Your task to perform on an android device: see tabs open on other devices in the chrome app Image 0: 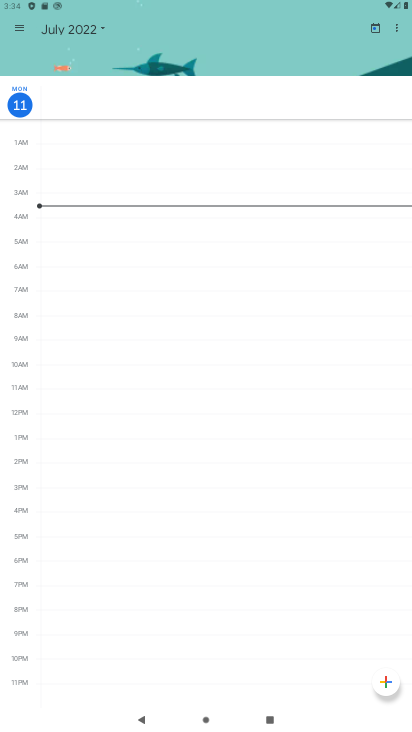
Step 0: press home button
Your task to perform on an android device: see tabs open on other devices in the chrome app Image 1: 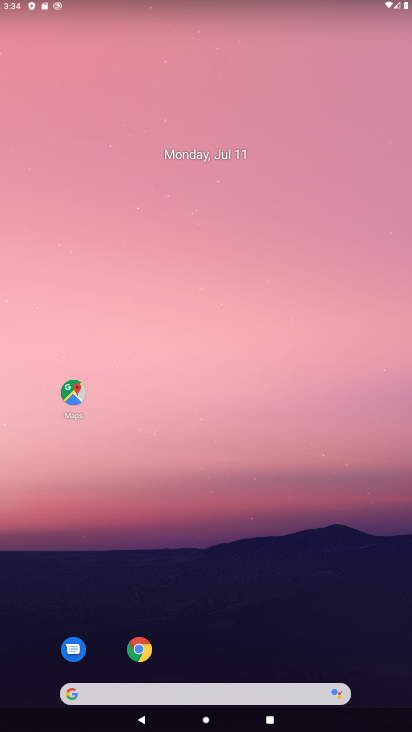
Step 1: drag from (170, 624) to (261, 68)
Your task to perform on an android device: see tabs open on other devices in the chrome app Image 2: 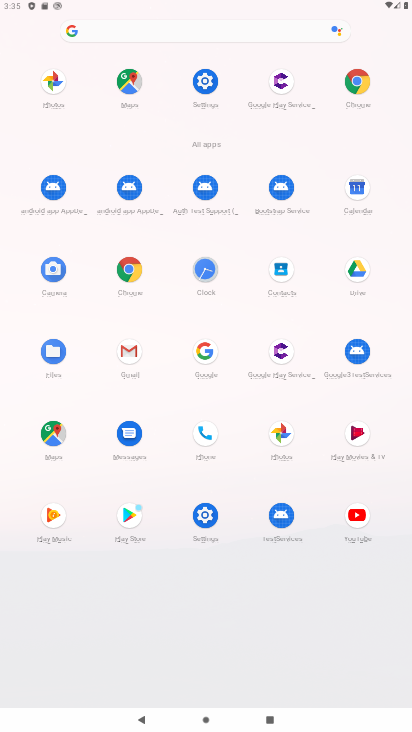
Step 2: click (124, 271)
Your task to perform on an android device: see tabs open on other devices in the chrome app Image 3: 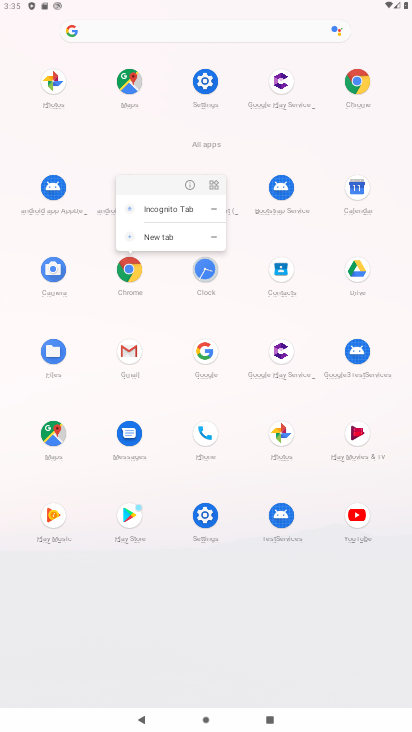
Step 3: click (186, 183)
Your task to perform on an android device: see tabs open on other devices in the chrome app Image 4: 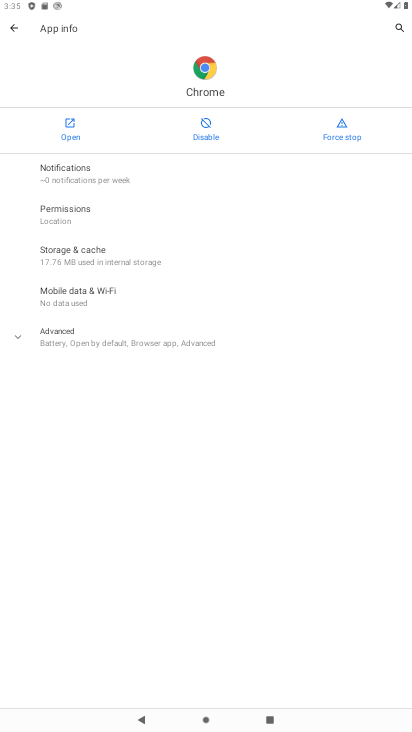
Step 4: click (61, 116)
Your task to perform on an android device: see tabs open on other devices in the chrome app Image 5: 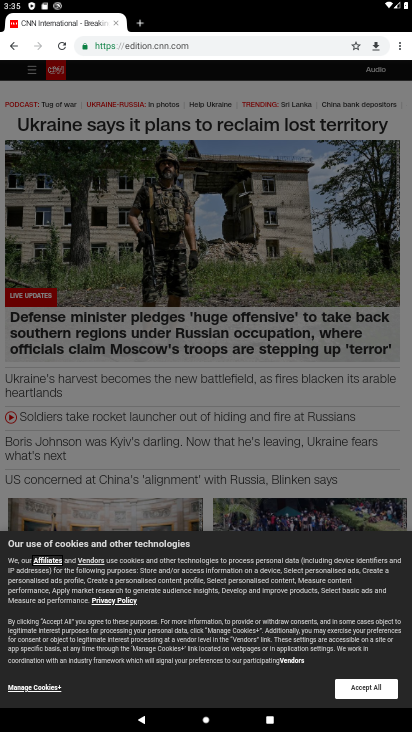
Step 5: click (402, 49)
Your task to perform on an android device: see tabs open on other devices in the chrome app Image 6: 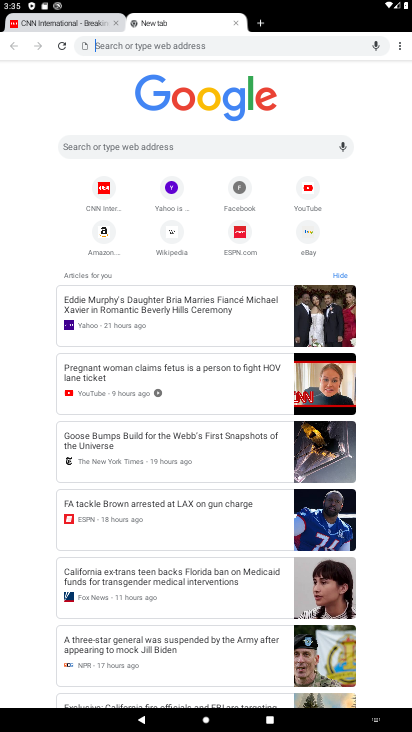
Step 6: click (395, 42)
Your task to perform on an android device: see tabs open on other devices in the chrome app Image 7: 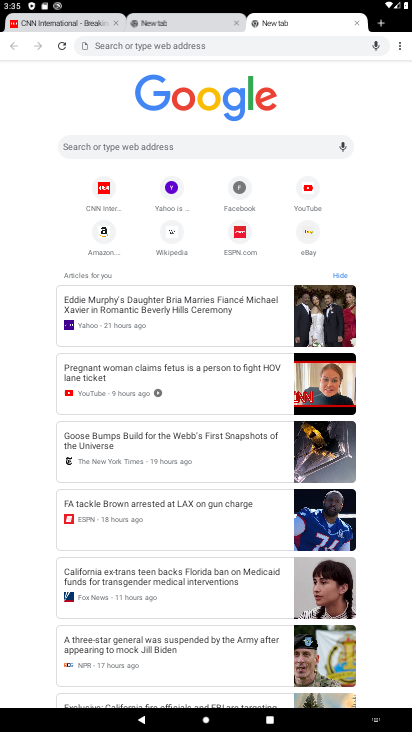
Step 7: drag from (399, 44) to (317, 118)
Your task to perform on an android device: see tabs open on other devices in the chrome app Image 8: 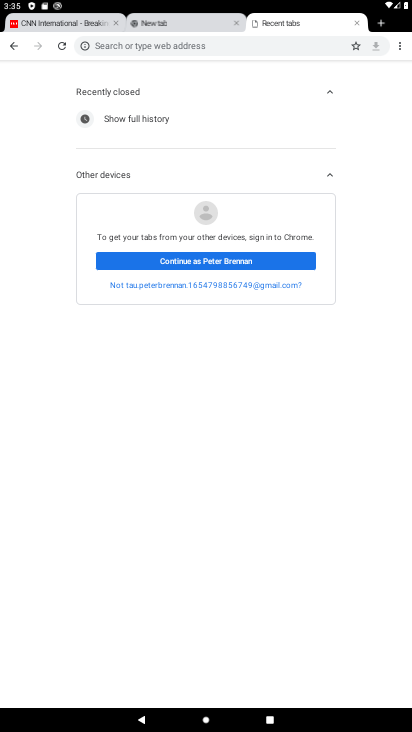
Step 8: drag from (206, 514) to (218, 199)
Your task to perform on an android device: see tabs open on other devices in the chrome app Image 9: 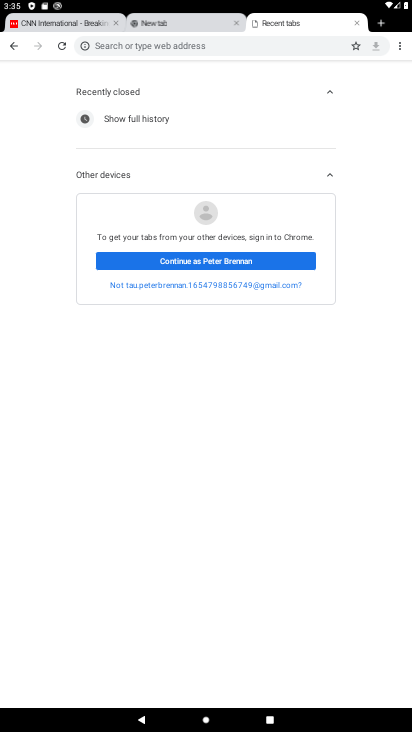
Step 9: click (321, 177)
Your task to perform on an android device: see tabs open on other devices in the chrome app Image 10: 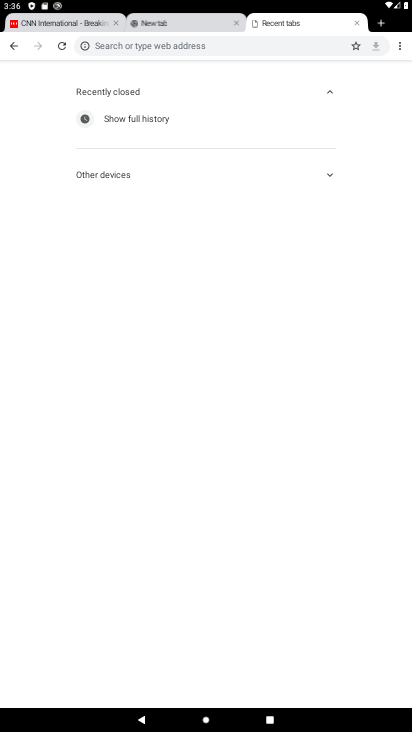
Step 10: task complete